Your task to perform on an android device: Open Google Chrome and open the bookmarks view Image 0: 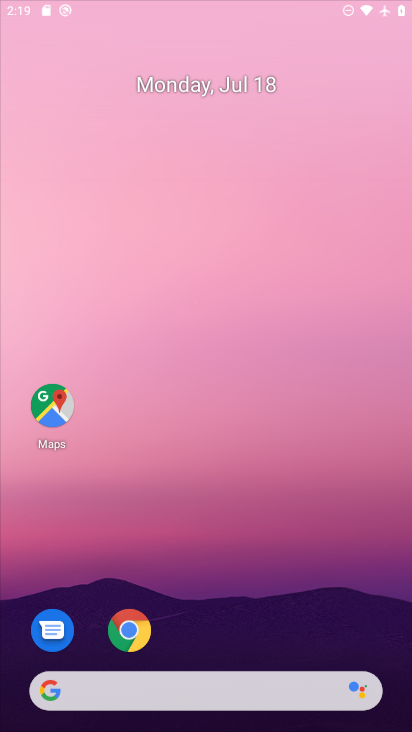
Step 0: press home button
Your task to perform on an android device: Open Google Chrome and open the bookmarks view Image 1: 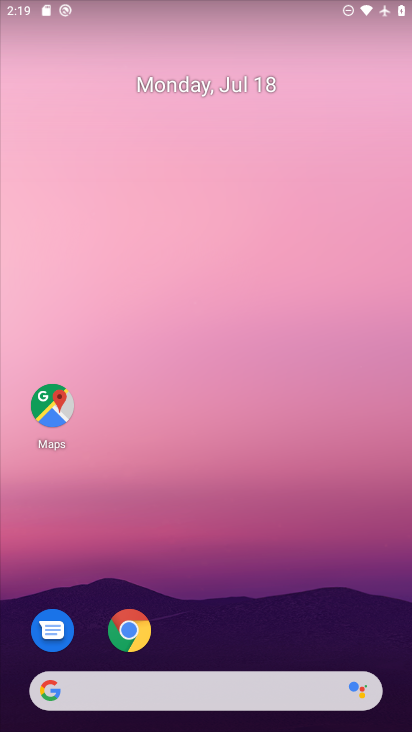
Step 1: drag from (268, 550) to (263, 42)
Your task to perform on an android device: Open Google Chrome and open the bookmarks view Image 2: 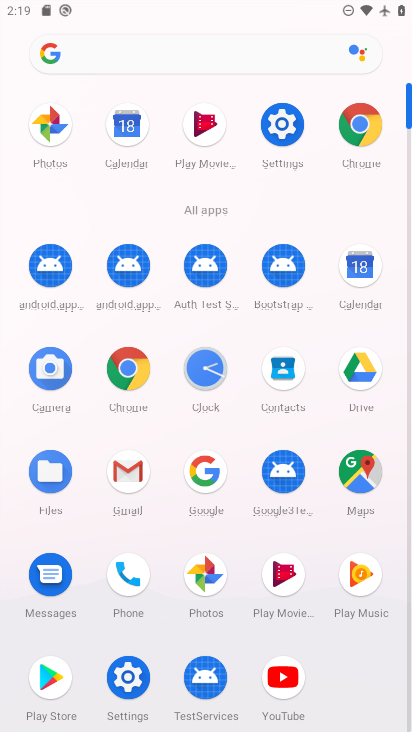
Step 2: click (361, 120)
Your task to perform on an android device: Open Google Chrome and open the bookmarks view Image 3: 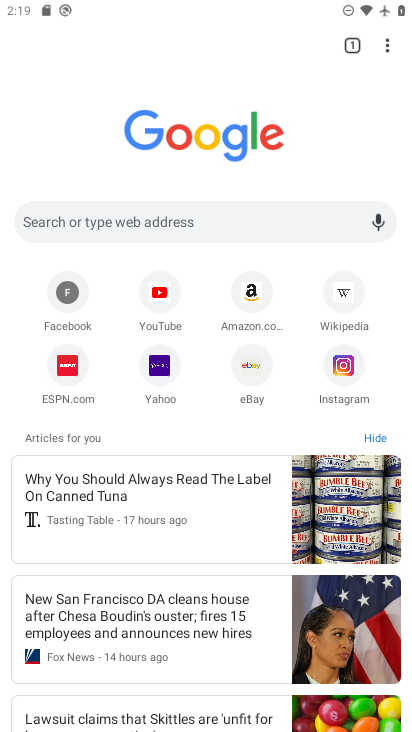
Step 3: drag from (383, 43) to (258, 169)
Your task to perform on an android device: Open Google Chrome and open the bookmarks view Image 4: 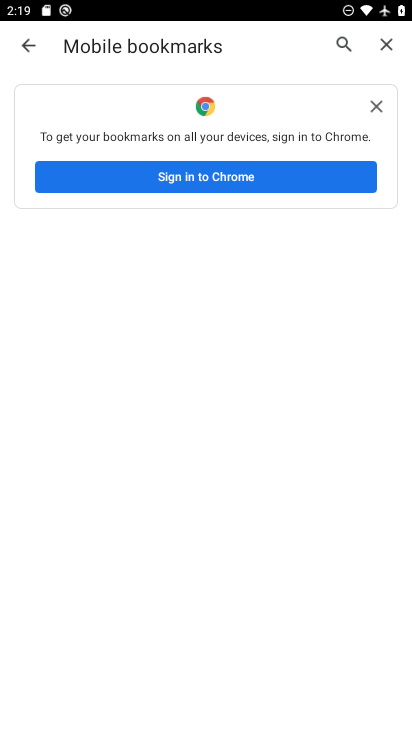
Step 4: click (374, 99)
Your task to perform on an android device: Open Google Chrome and open the bookmarks view Image 5: 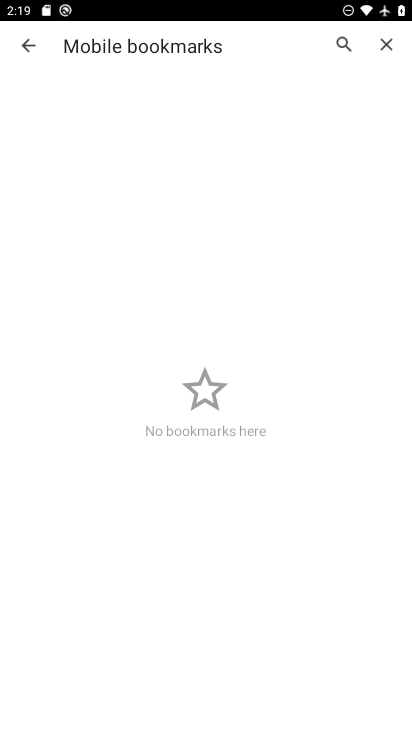
Step 5: task complete